Your task to perform on an android device: turn off sleep mode Image 0: 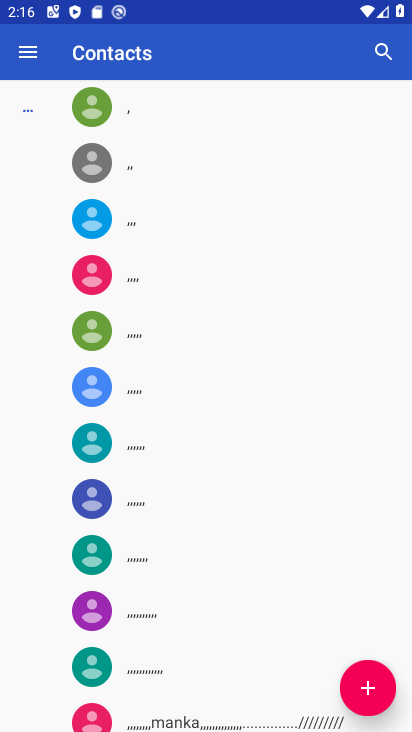
Step 0: press back button
Your task to perform on an android device: turn off sleep mode Image 1: 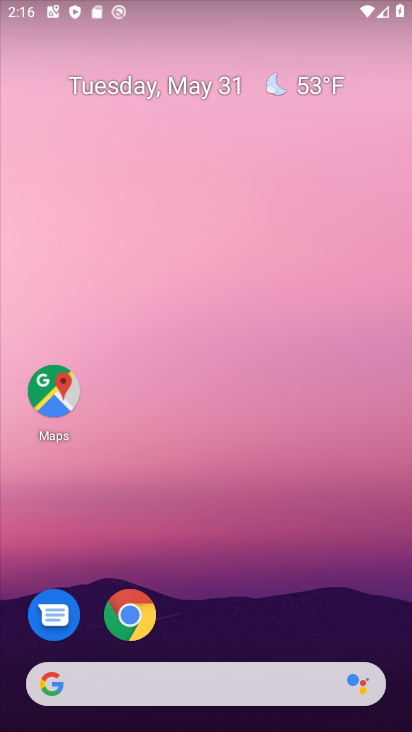
Step 1: drag from (248, 482) to (280, 68)
Your task to perform on an android device: turn off sleep mode Image 2: 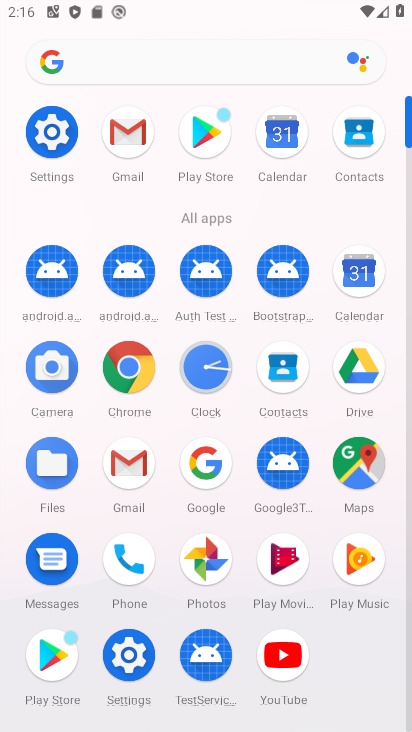
Step 2: click (48, 123)
Your task to perform on an android device: turn off sleep mode Image 3: 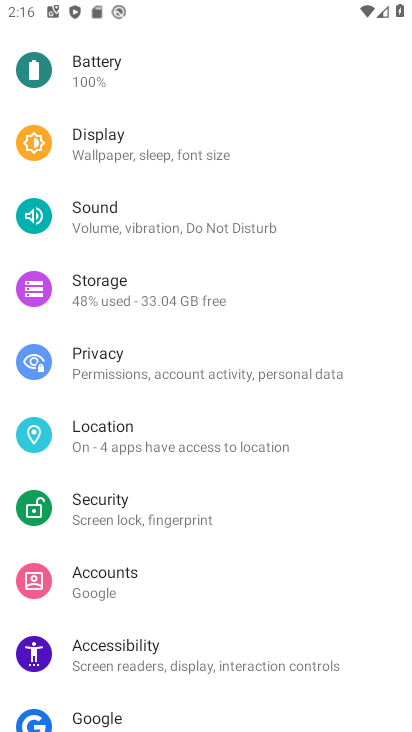
Step 3: drag from (204, 155) to (195, 654)
Your task to perform on an android device: turn off sleep mode Image 4: 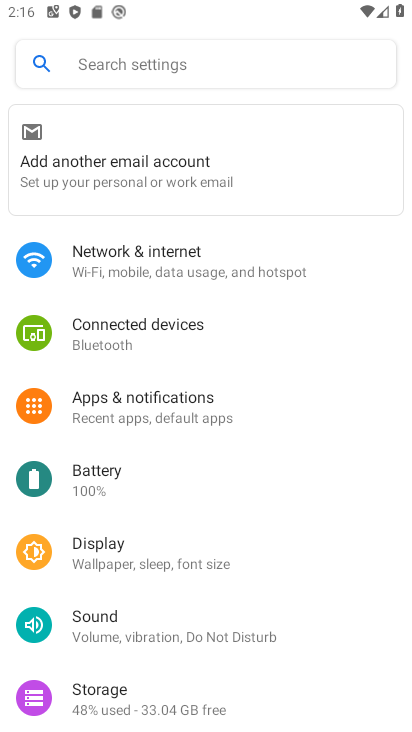
Step 4: click (114, 56)
Your task to perform on an android device: turn off sleep mode Image 5: 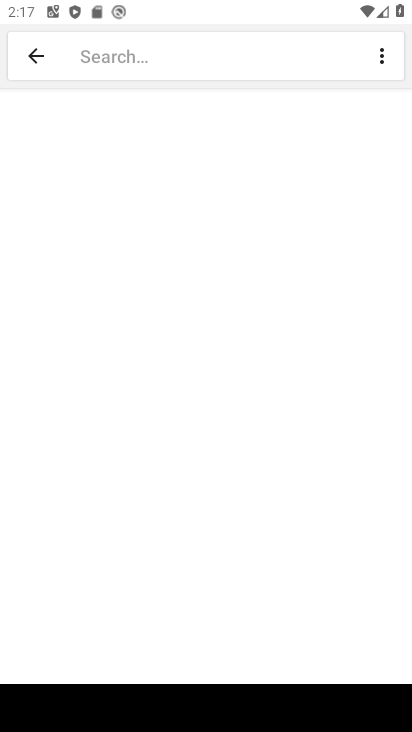
Step 5: type "sleep mode"
Your task to perform on an android device: turn off sleep mode Image 6: 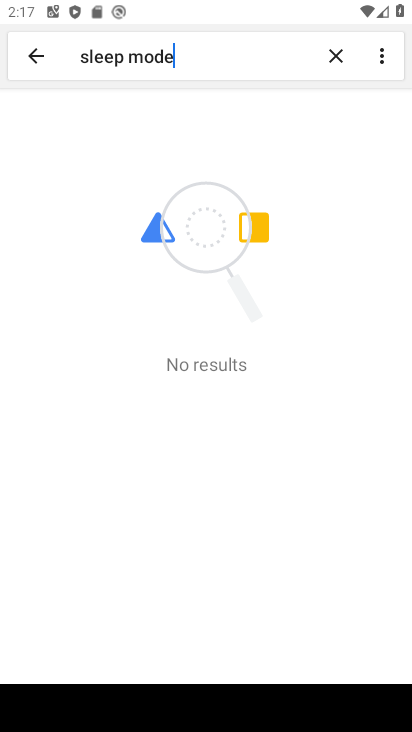
Step 6: task complete